Your task to perform on an android device: Open Google Maps and go to "Timeline" Image 0: 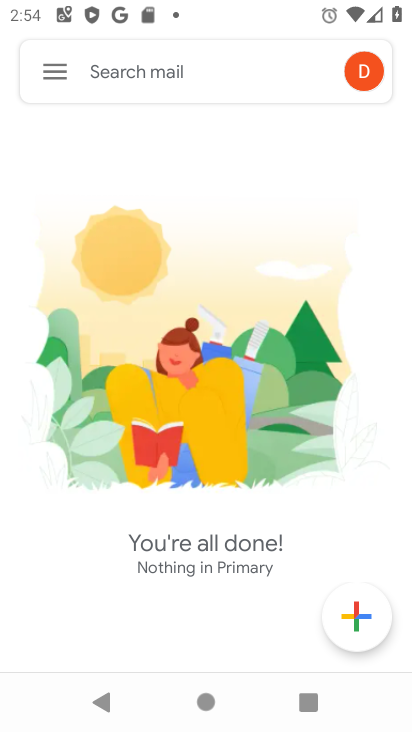
Step 0: press home button
Your task to perform on an android device: Open Google Maps and go to "Timeline" Image 1: 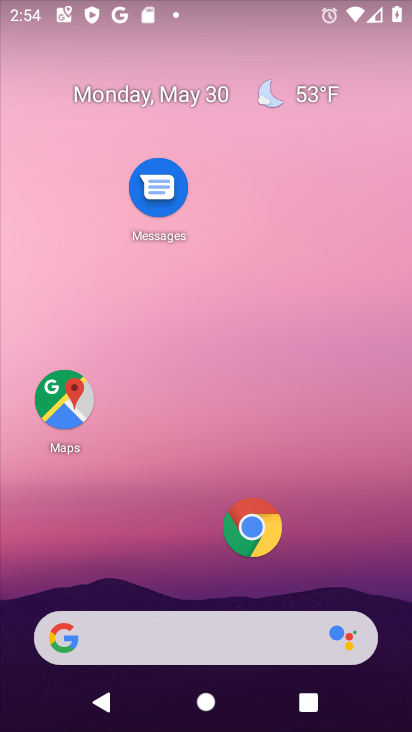
Step 1: drag from (166, 570) to (247, 195)
Your task to perform on an android device: Open Google Maps and go to "Timeline" Image 2: 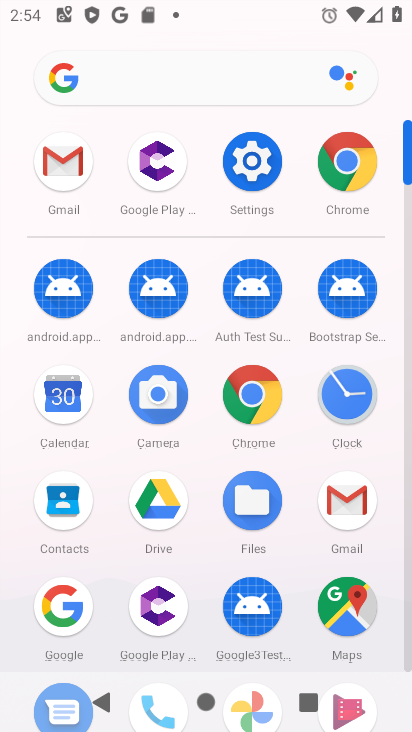
Step 2: click (364, 615)
Your task to perform on an android device: Open Google Maps and go to "Timeline" Image 3: 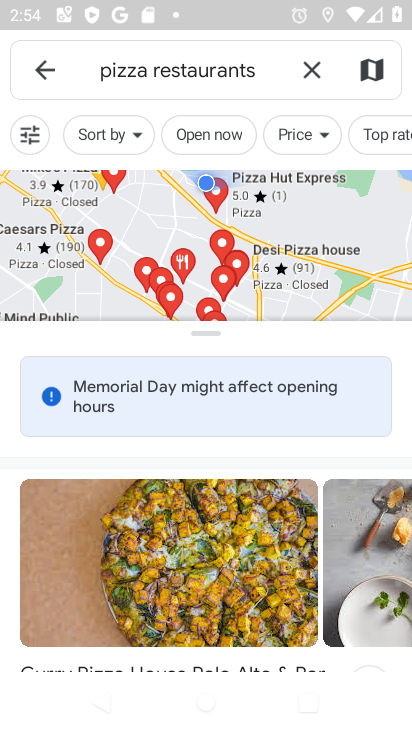
Step 3: press back button
Your task to perform on an android device: Open Google Maps and go to "Timeline" Image 4: 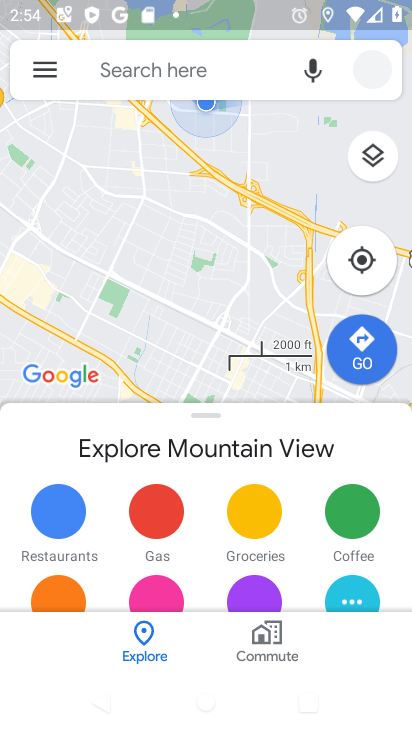
Step 4: click (48, 76)
Your task to perform on an android device: Open Google Maps and go to "Timeline" Image 5: 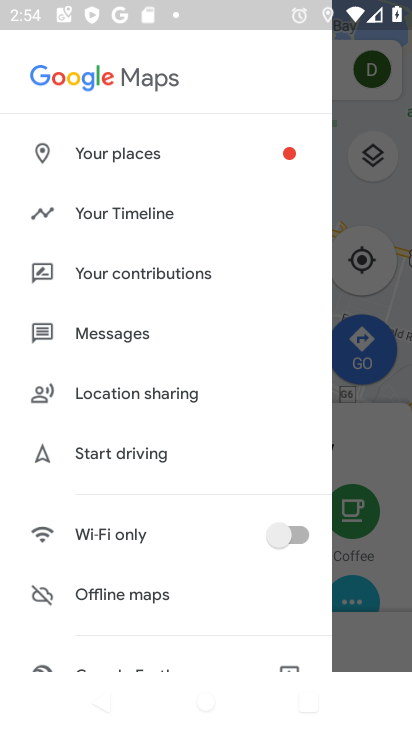
Step 5: click (135, 212)
Your task to perform on an android device: Open Google Maps and go to "Timeline" Image 6: 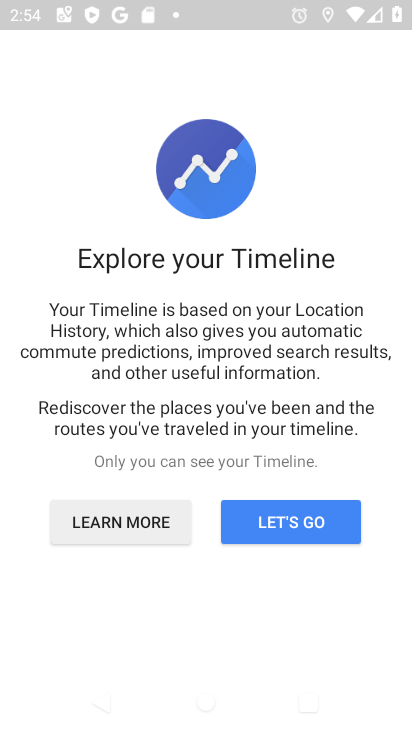
Step 6: click (304, 524)
Your task to perform on an android device: Open Google Maps and go to "Timeline" Image 7: 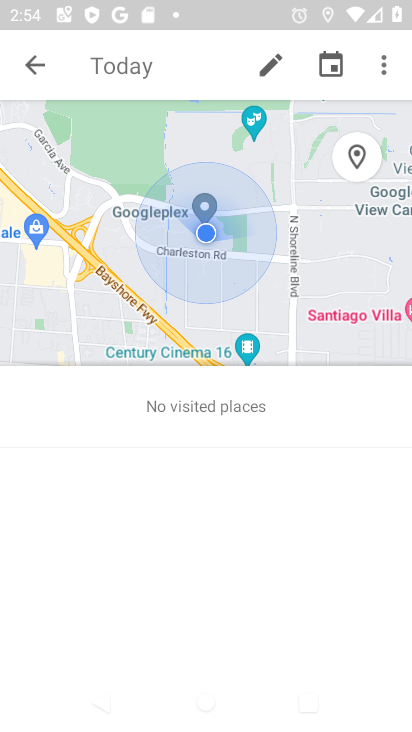
Step 7: task complete